Your task to perform on an android device: Search for seafood restaurants on Google Maps Image 0: 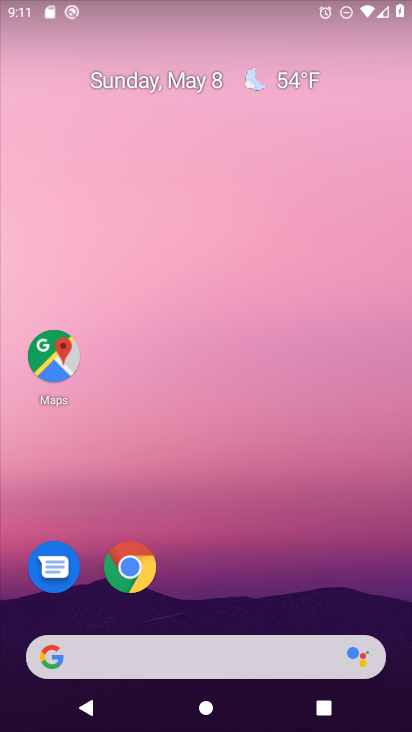
Step 0: drag from (191, 600) to (81, 176)
Your task to perform on an android device: Search for seafood restaurants on Google Maps Image 1: 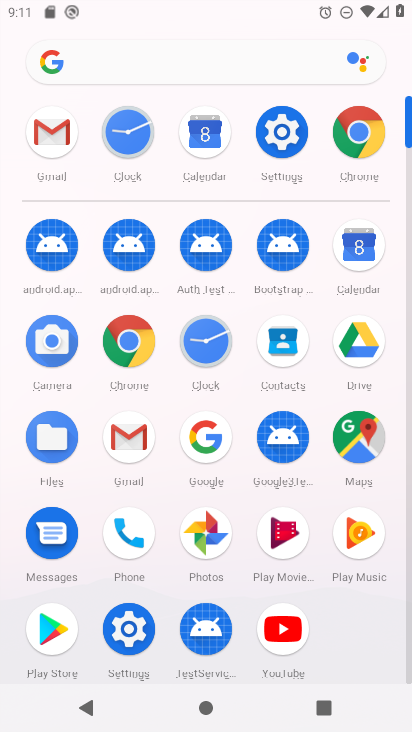
Step 1: click (355, 134)
Your task to perform on an android device: Search for seafood restaurants on Google Maps Image 2: 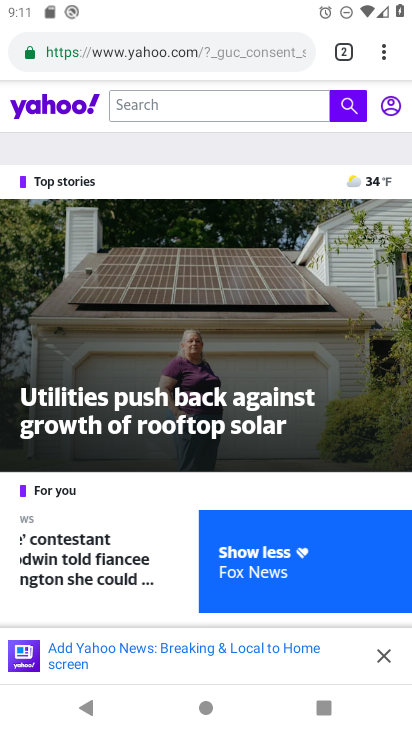
Step 2: press home button
Your task to perform on an android device: Search for seafood restaurants on Google Maps Image 3: 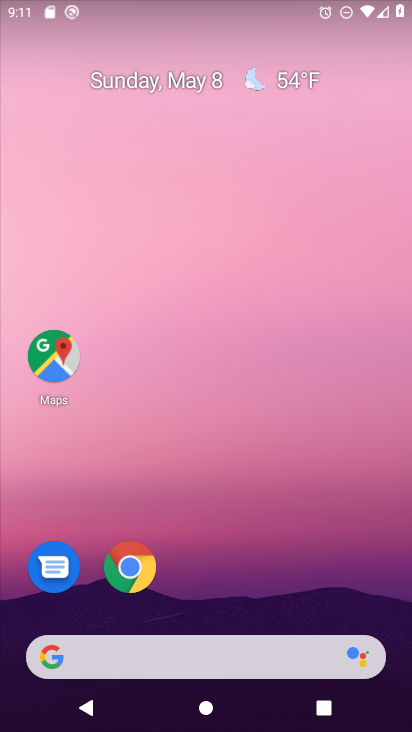
Step 3: click (41, 369)
Your task to perform on an android device: Search for seafood restaurants on Google Maps Image 4: 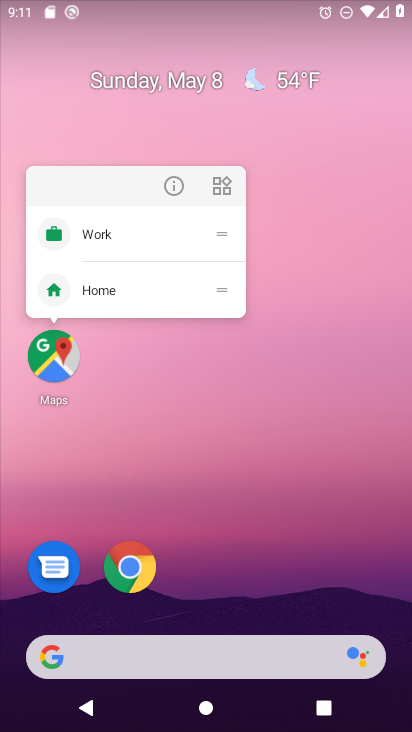
Step 4: click (41, 368)
Your task to perform on an android device: Search for seafood restaurants on Google Maps Image 5: 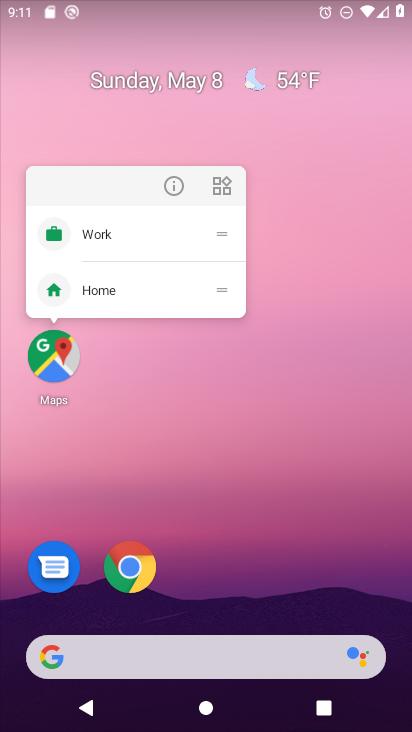
Step 5: click (41, 367)
Your task to perform on an android device: Search for seafood restaurants on Google Maps Image 6: 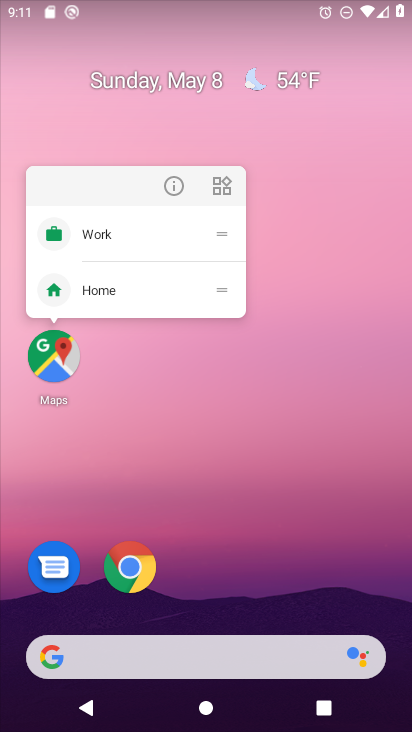
Step 6: click (41, 367)
Your task to perform on an android device: Search for seafood restaurants on Google Maps Image 7: 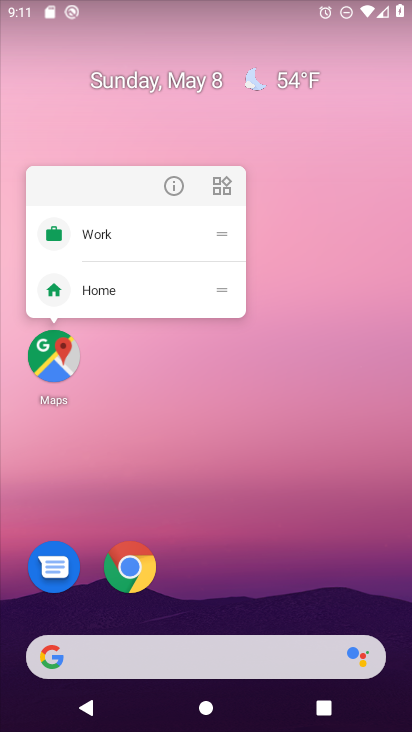
Step 7: click (368, 610)
Your task to perform on an android device: Search for seafood restaurants on Google Maps Image 8: 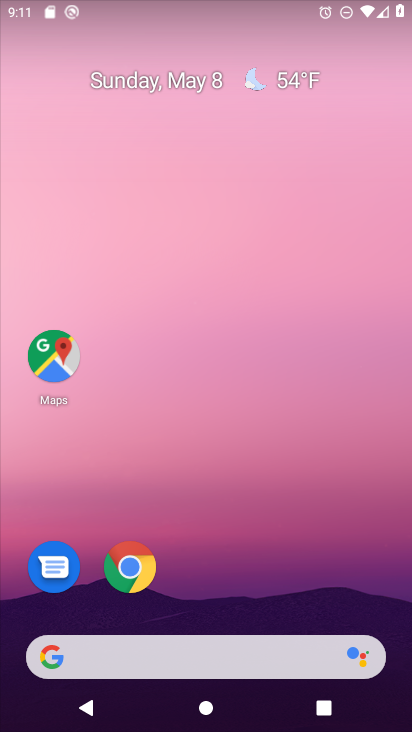
Step 8: drag from (360, 623) to (232, 158)
Your task to perform on an android device: Search for seafood restaurants on Google Maps Image 9: 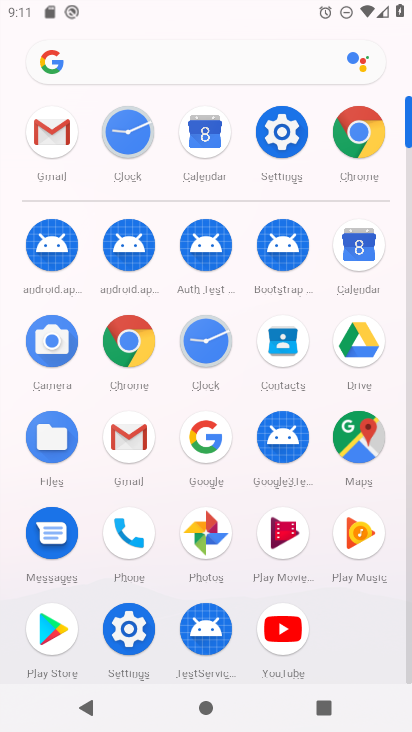
Step 9: click (352, 442)
Your task to perform on an android device: Search for seafood restaurants on Google Maps Image 10: 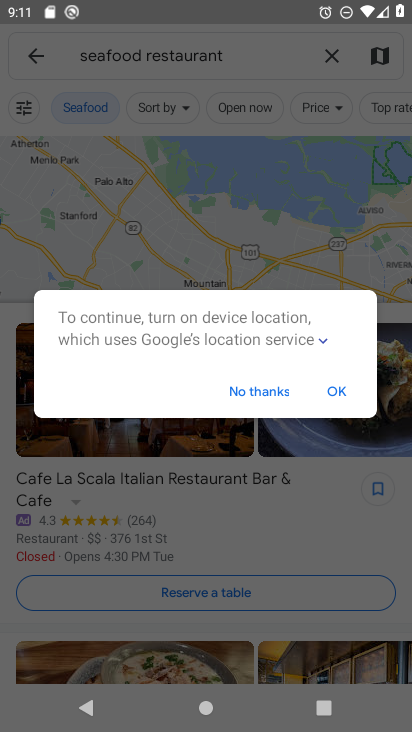
Step 10: click (285, 396)
Your task to perform on an android device: Search for seafood restaurants on Google Maps Image 11: 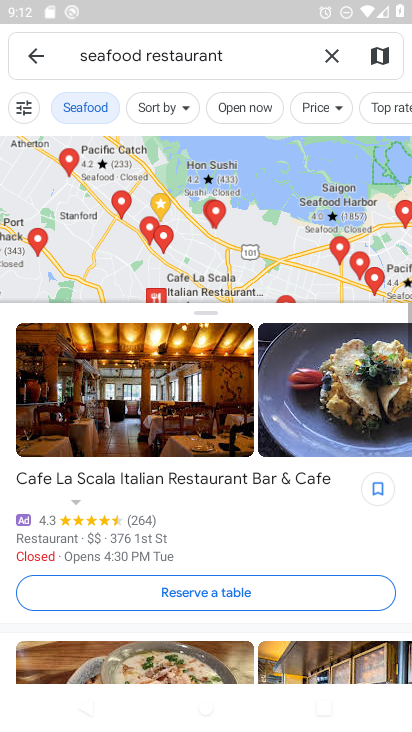
Step 11: drag from (391, 604) to (339, 313)
Your task to perform on an android device: Search for seafood restaurants on Google Maps Image 12: 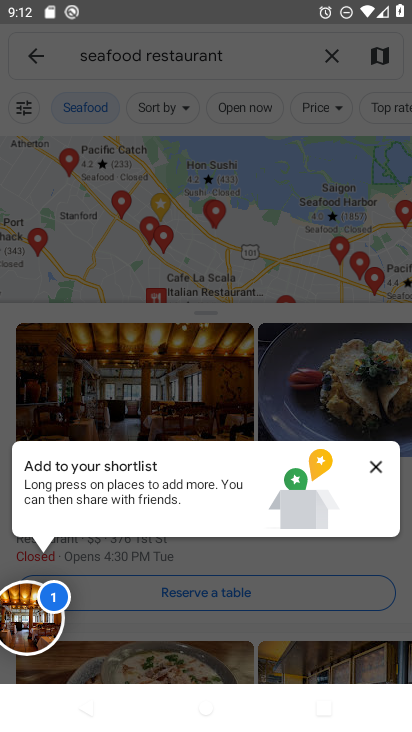
Step 12: click (366, 474)
Your task to perform on an android device: Search for seafood restaurants on Google Maps Image 13: 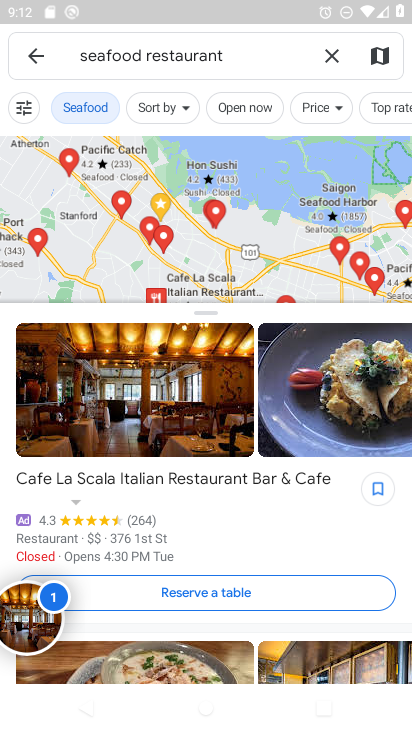
Step 13: task complete